Your task to perform on an android device: Show me productivity apps on the Play Store Image 0: 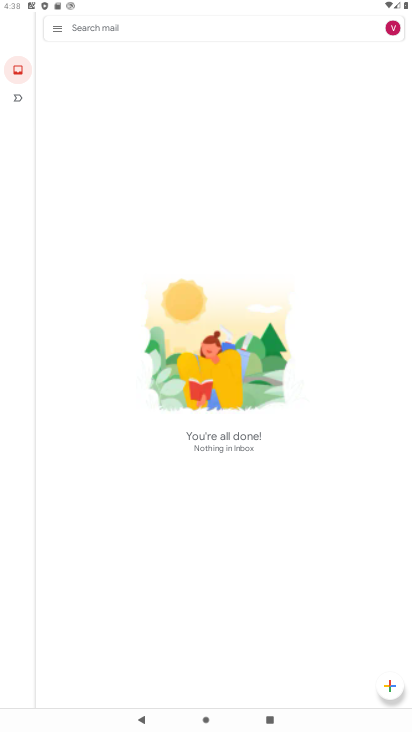
Step 0: press home button
Your task to perform on an android device: Show me productivity apps on the Play Store Image 1: 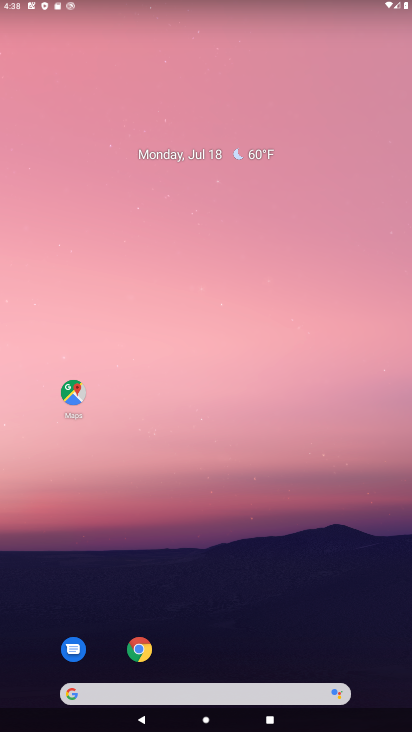
Step 1: drag from (206, 619) to (176, 11)
Your task to perform on an android device: Show me productivity apps on the Play Store Image 2: 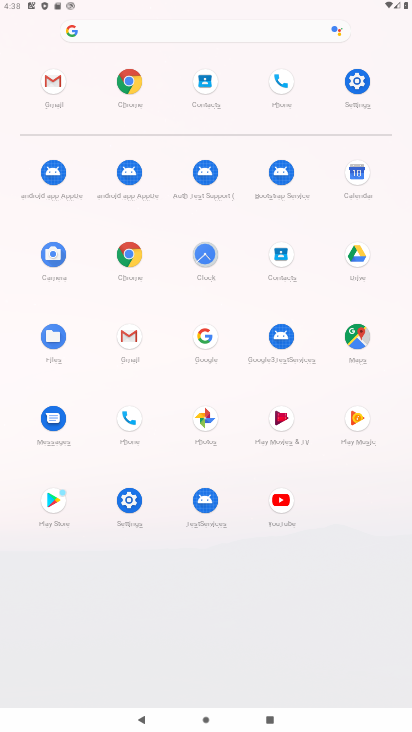
Step 2: click (50, 505)
Your task to perform on an android device: Show me productivity apps on the Play Store Image 3: 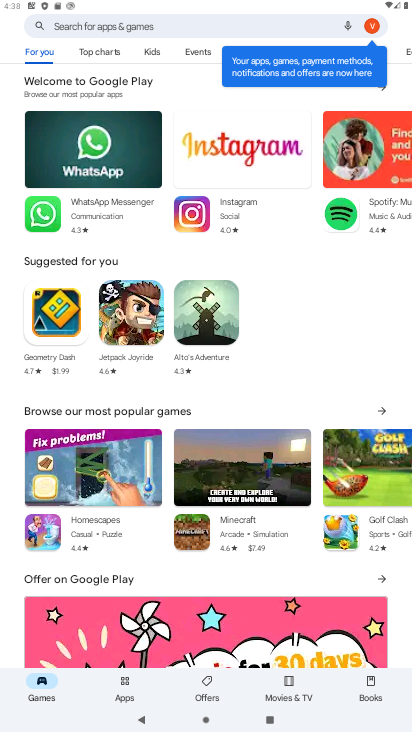
Step 3: click (124, 681)
Your task to perform on an android device: Show me productivity apps on the Play Store Image 4: 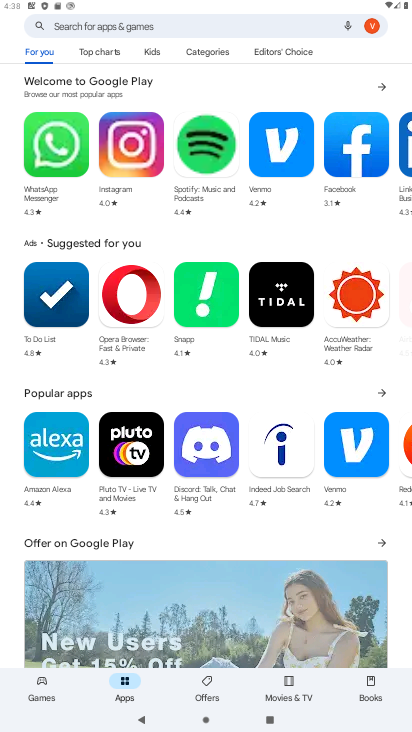
Step 4: click (210, 53)
Your task to perform on an android device: Show me productivity apps on the Play Store Image 5: 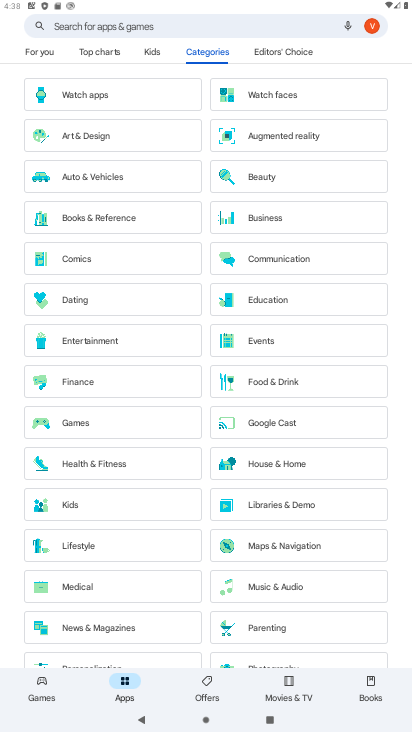
Step 5: drag from (266, 607) to (287, 315)
Your task to perform on an android device: Show me productivity apps on the Play Store Image 6: 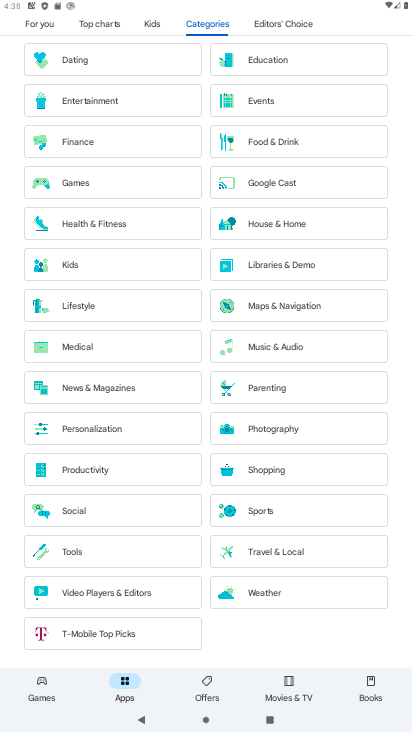
Step 6: click (106, 470)
Your task to perform on an android device: Show me productivity apps on the Play Store Image 7: 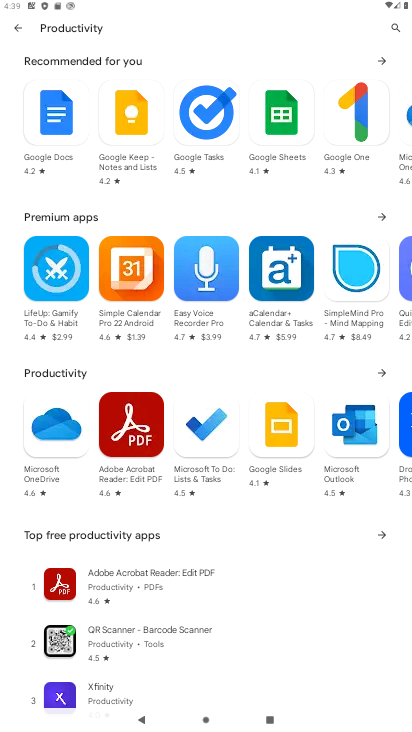
Step 7: task complete